Your task to perform on an android device: Check the news Image 0: 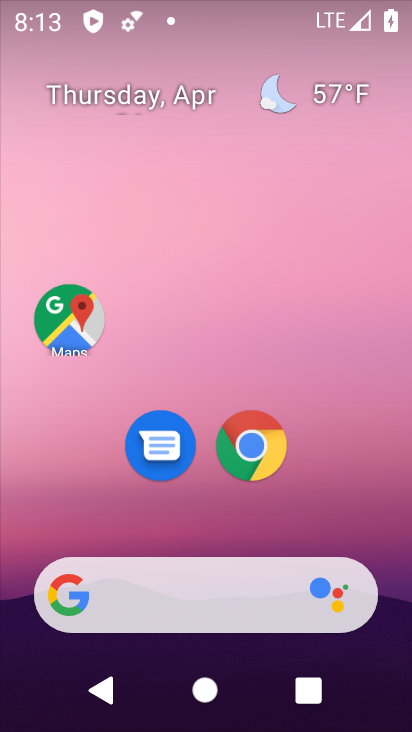
Step 0: drag from (34, 219) to (406, 314)
Your task to perform on an android device: Check the news Image 1: 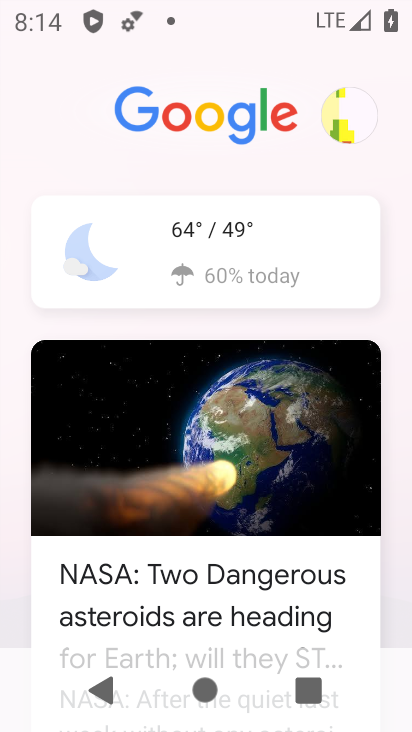
Step 1: task complete